Your task to perform on an android device: toggle pop-ups in chrome Image 0: 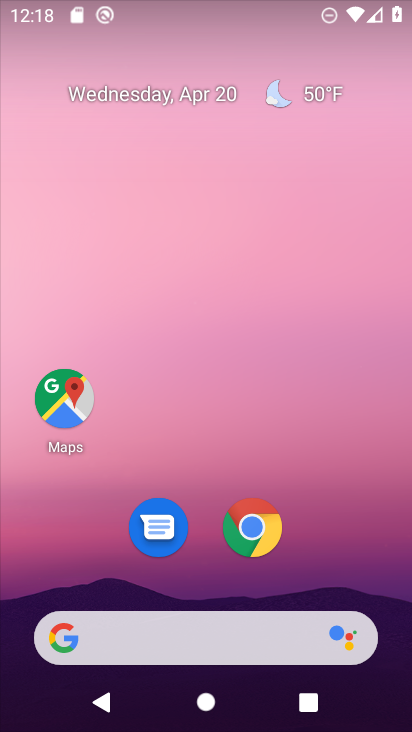
Step 0: click (247, 522)
Your task to perform on an android device: toggle pop-ups in chrome Image 1: 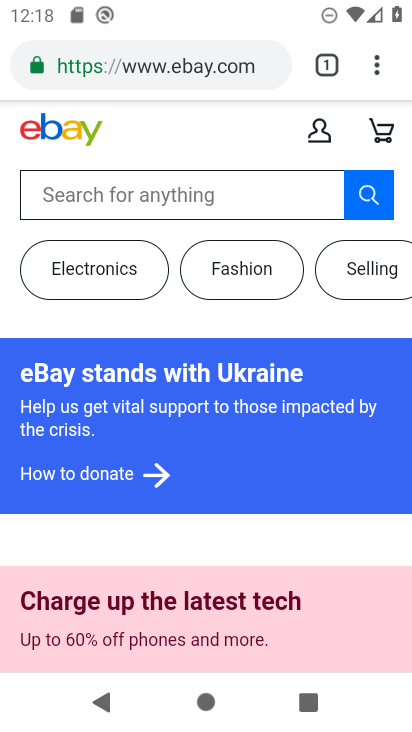
Step 1: click (377, 67)
Your task to perform on an android device: toggle pop-ups in chrome Image 2: 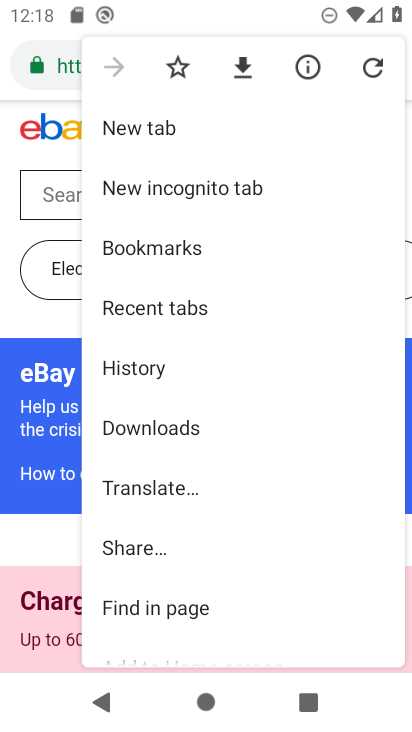
Step 2: drag from (271, 427) to (247, 3)
Your task to perform on an android device: toggle pop-ups in chrome Image 3: 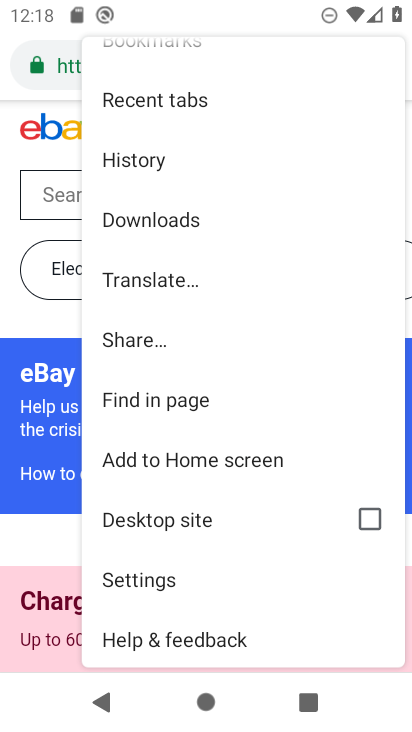
Step 3: click (129, 583)
Your task to perform on an android device: toggle pop-ups in chrome Image 4: 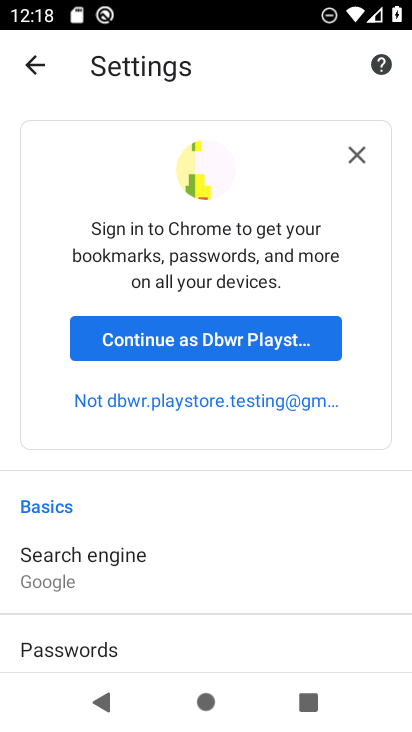
Step 4: drag from (174, 584) to (175, 83)
Your task to perform on an android device: toggle pop-ups in chrome Image 5: 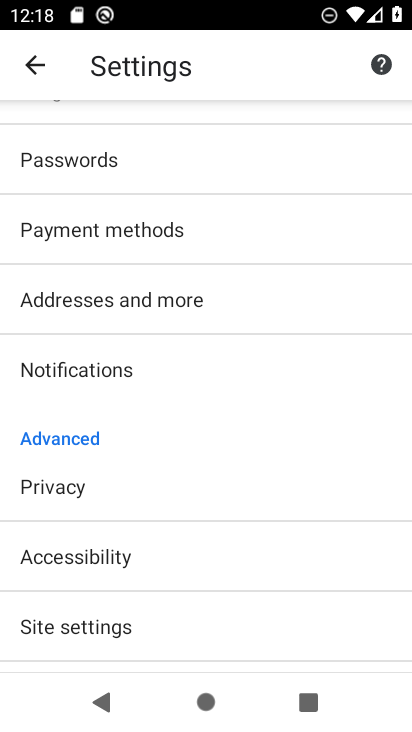
Step 5: drag from (246, 581) to (223, 267)
Your task to perform on an android device: toggle pop-ups in chrome Image 6: 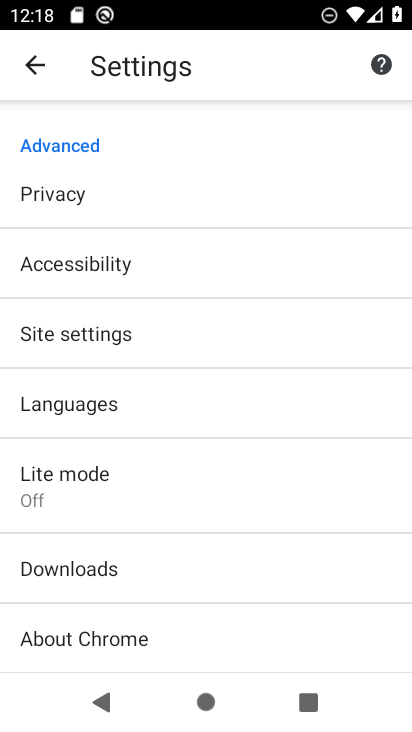
Step 6: click (74, 341)
Your task to perform on an android device: toggle pop-ups in chrome Image 7: 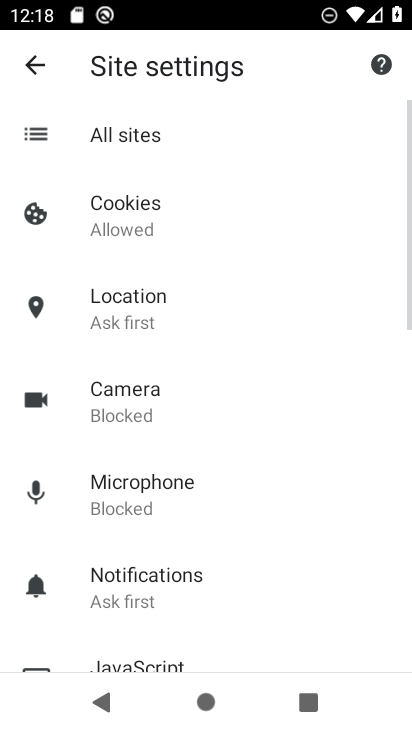
Step 7: drag from (250, 500) to (249, 171)
Your task to perform on an android device: toggle pop-ups in chrome Image 8: 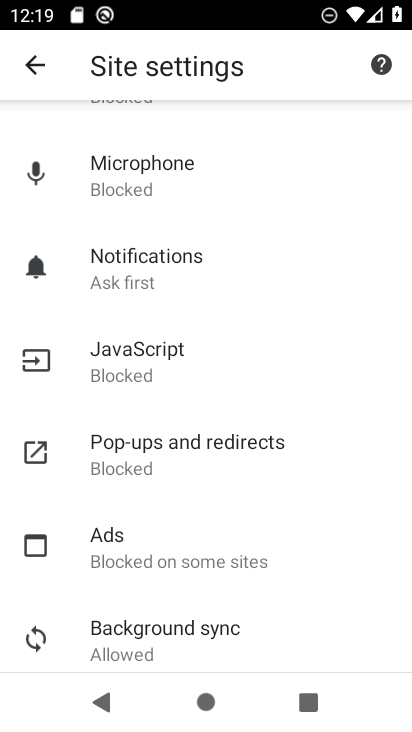
Step 8: click (147, 467)
Your task to perform on an android device: toggle pop-ups in chrome Image 9: 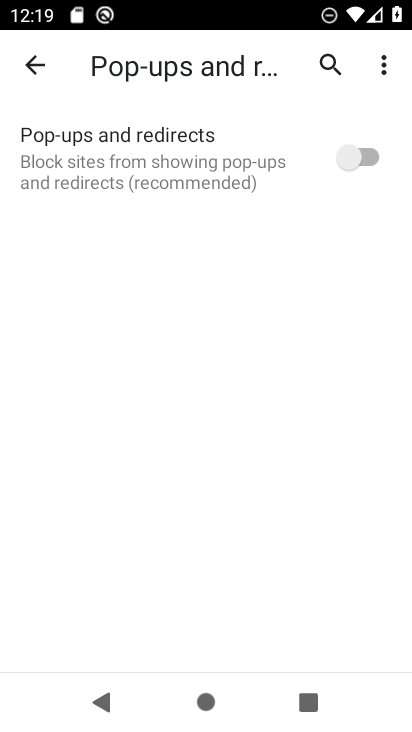
Step 9: click (363, 157)
Your task to perform on an android device: toggle pop-ups in chrome Image 10: 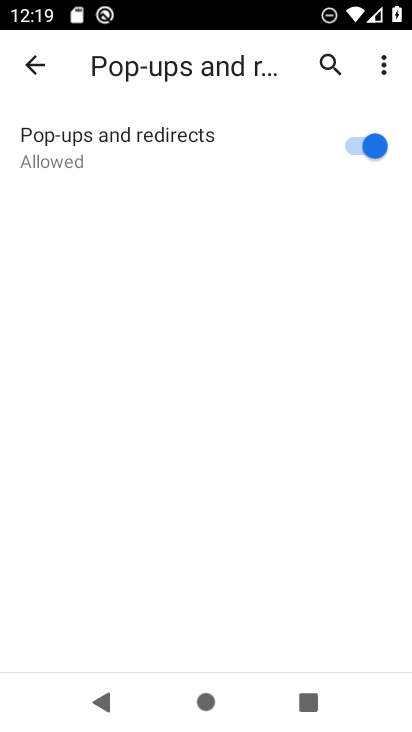
Step 10: task complete